Your task to perform on an android device: turn smart compose on in the gmail app Image 0: 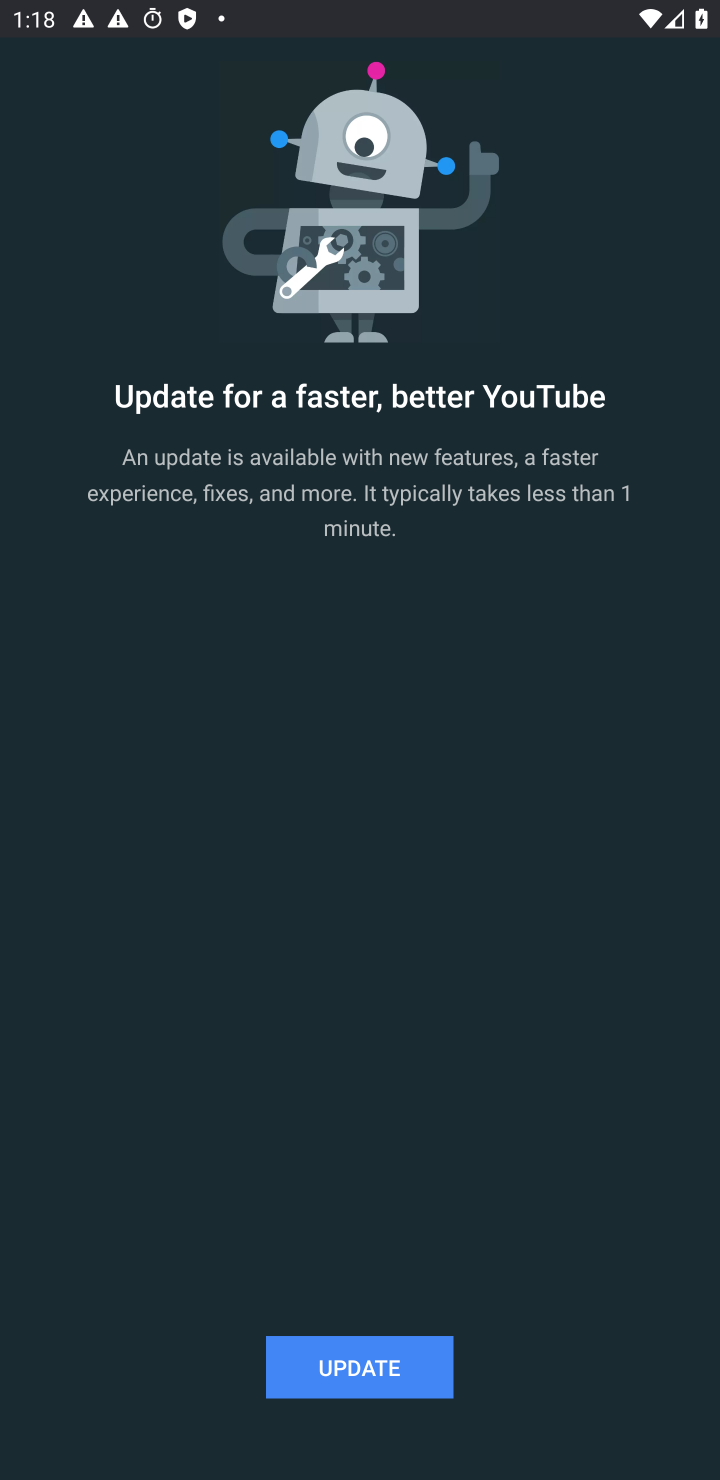
Step 0: press home button
Your task to perform on an android device: turn smart compose on in the gmail app Image 1: 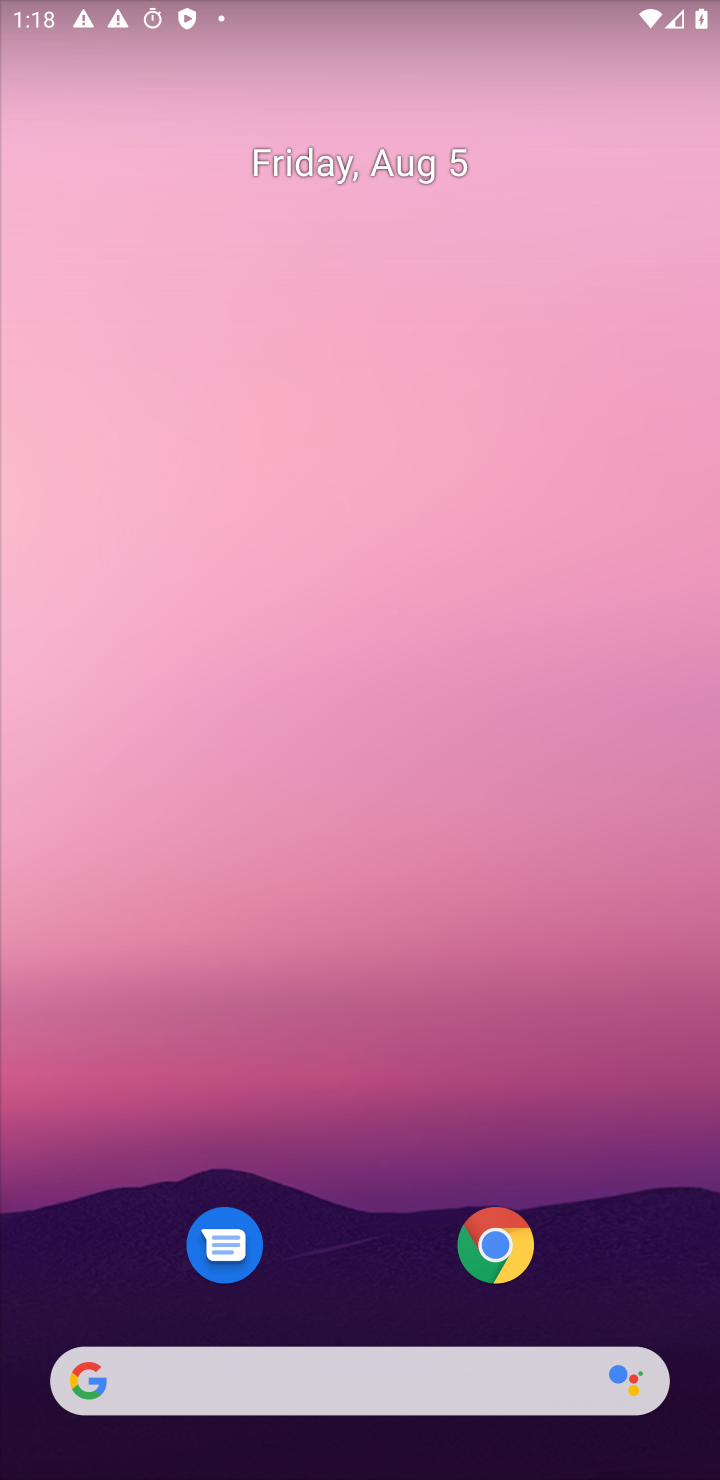
Step 1: drag from (386, 1217) to (537, 321)
Your task to perform on an android device: turn smart compose on in the gmail app Image 2: 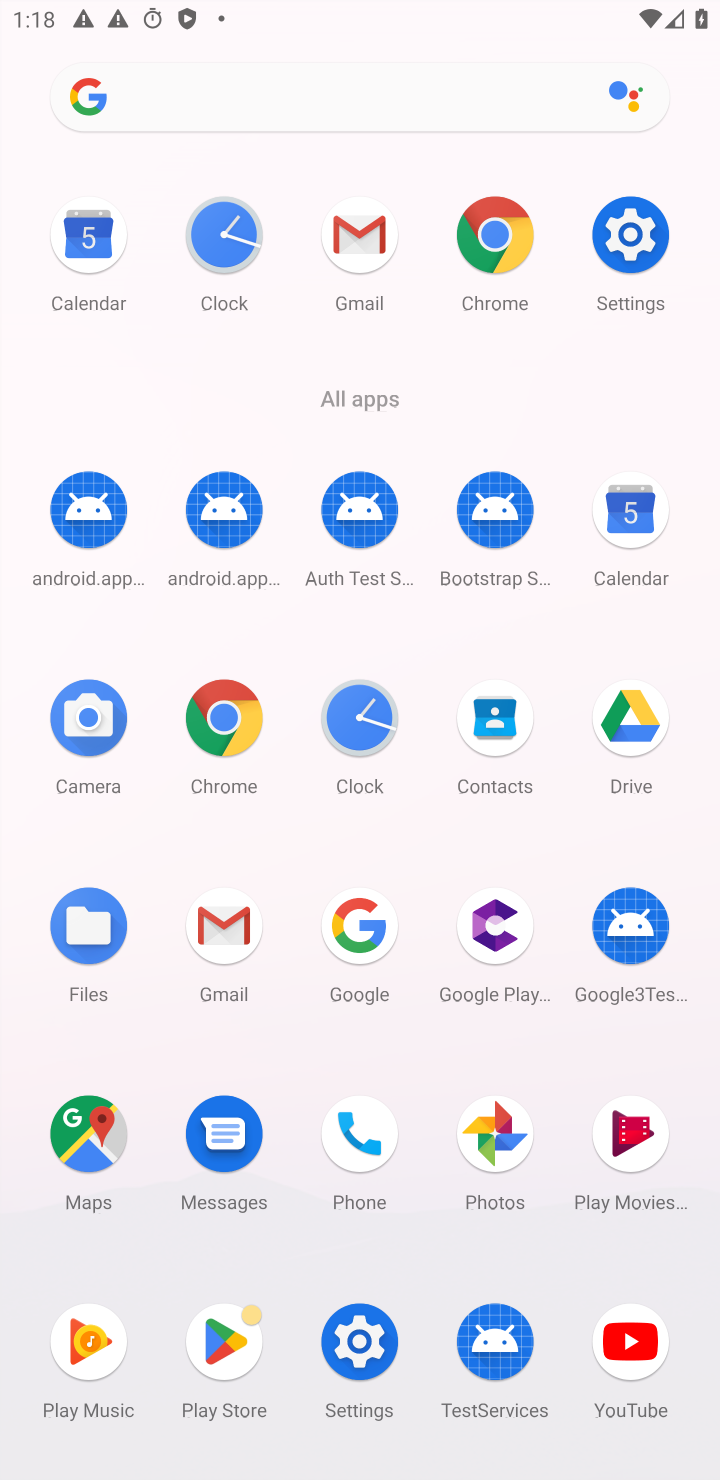
Step 2: click (351, 248)
Your task to perform on an android device: turn smart compose on in the gmail app Image 3: 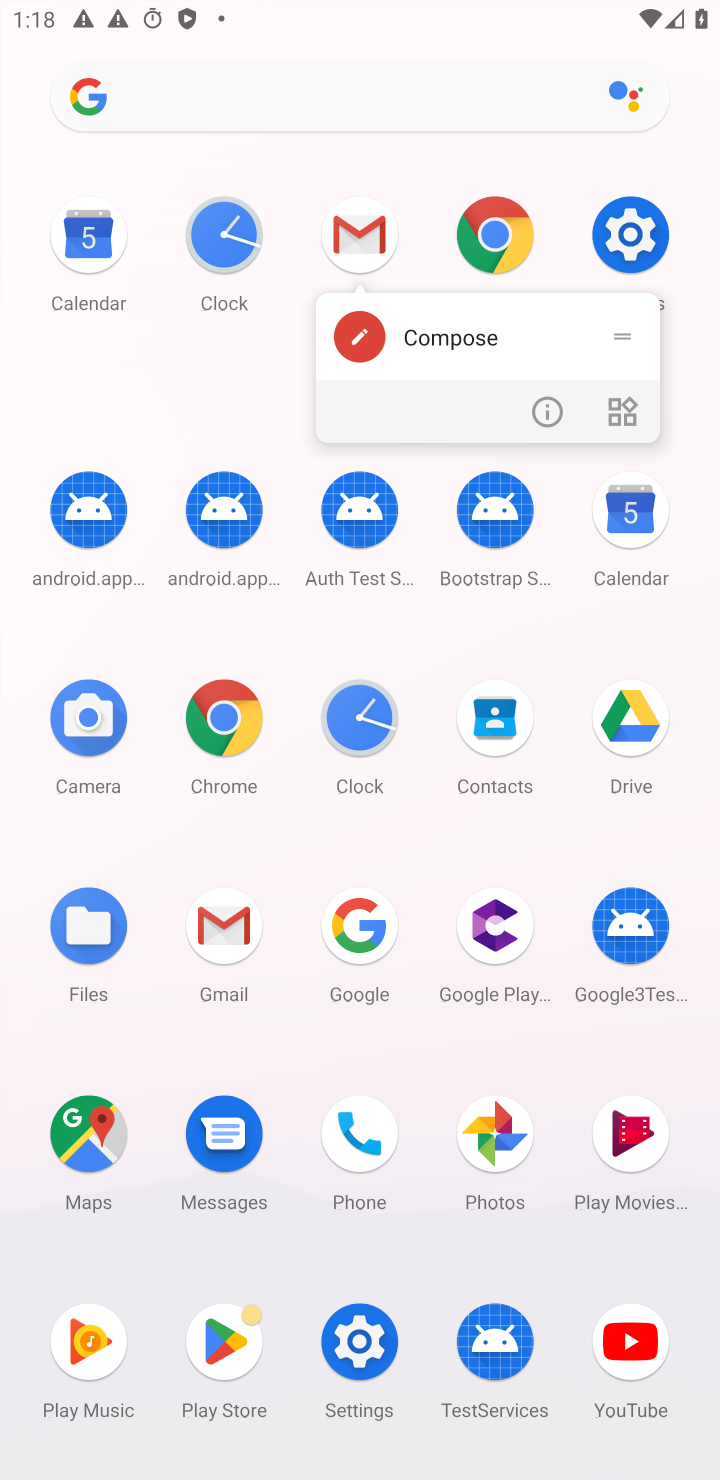
Step 3: click (350, 243)
Your task to perform on an android device: turn smart compose on in the gmail app Image 4: 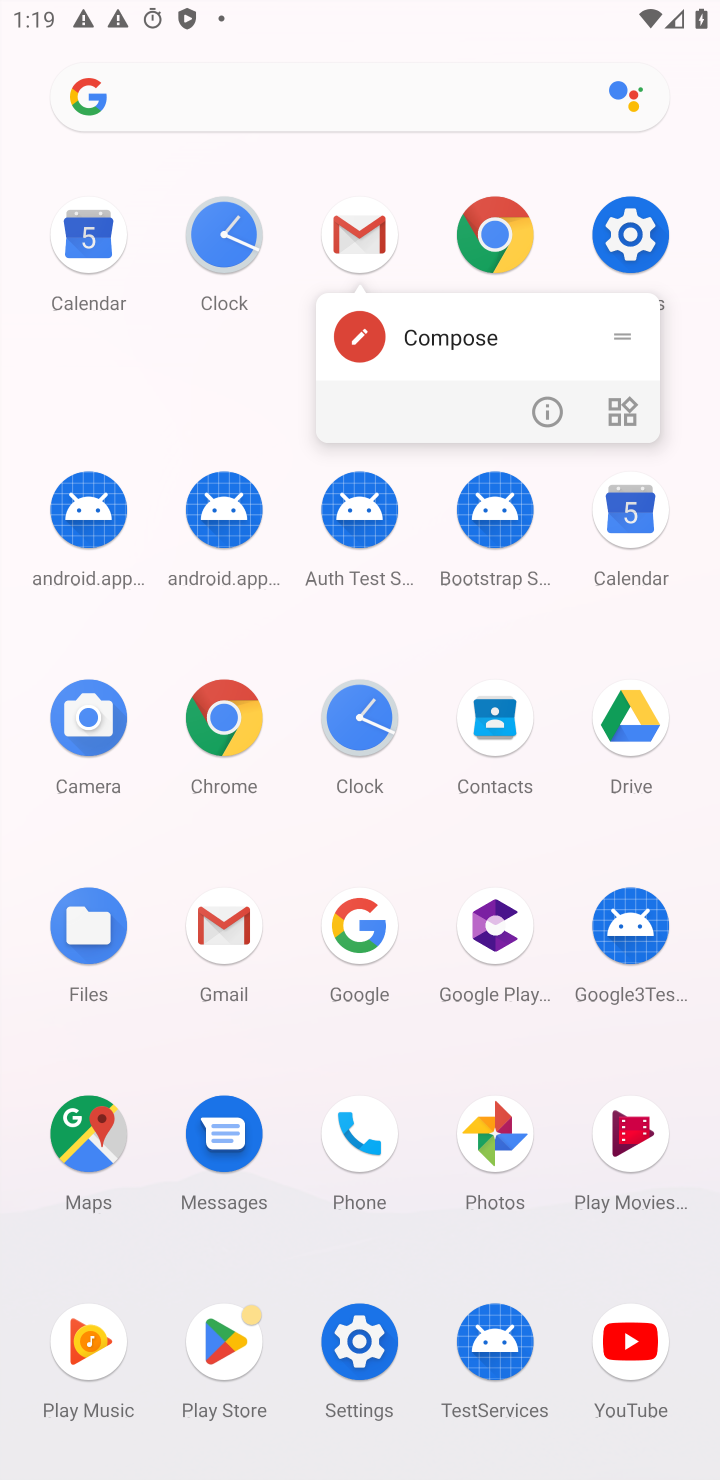
Step 4: click (348, 253)
Your task to perform on an android device: turn smart compose on in the gmail app Image 5: 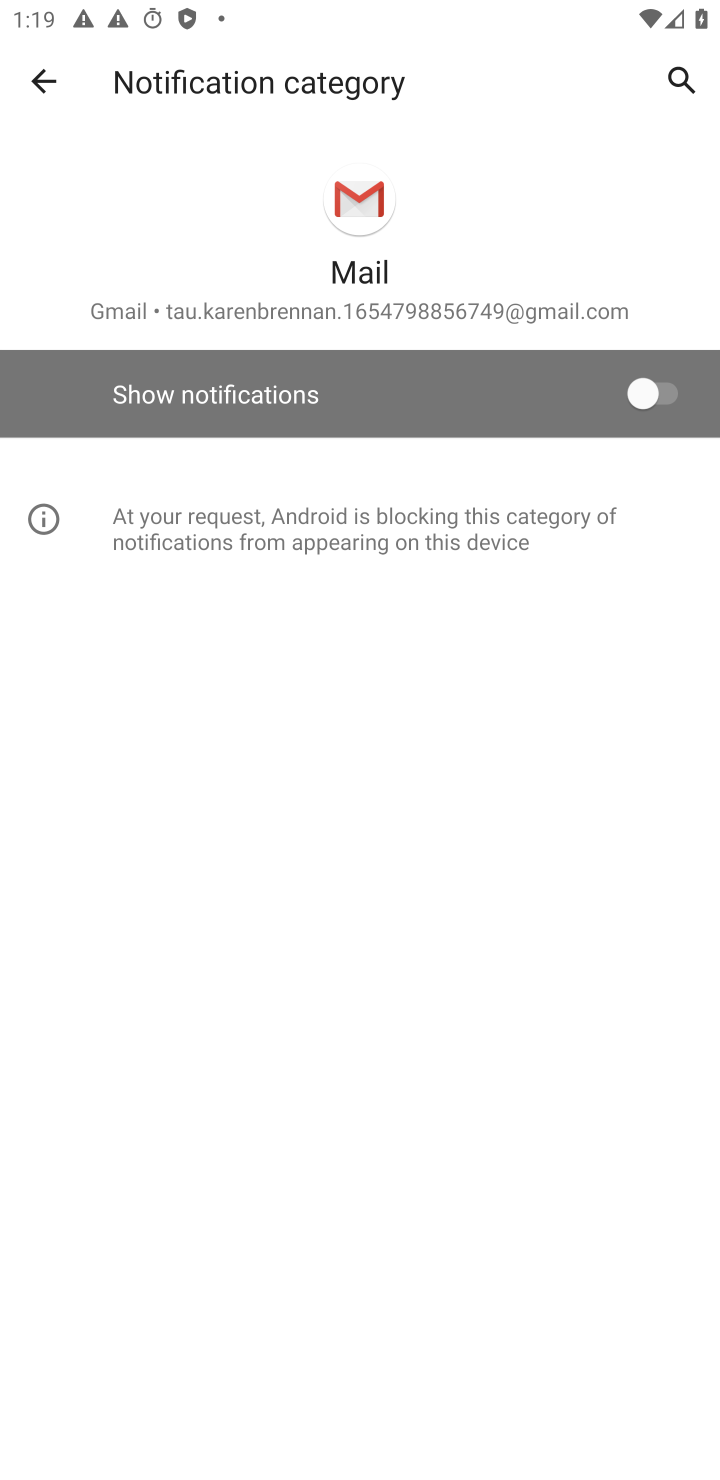
Step 5: click (51, 70)
Your task to perform on an android device: turn smart compose on in the gmail app Image 6: 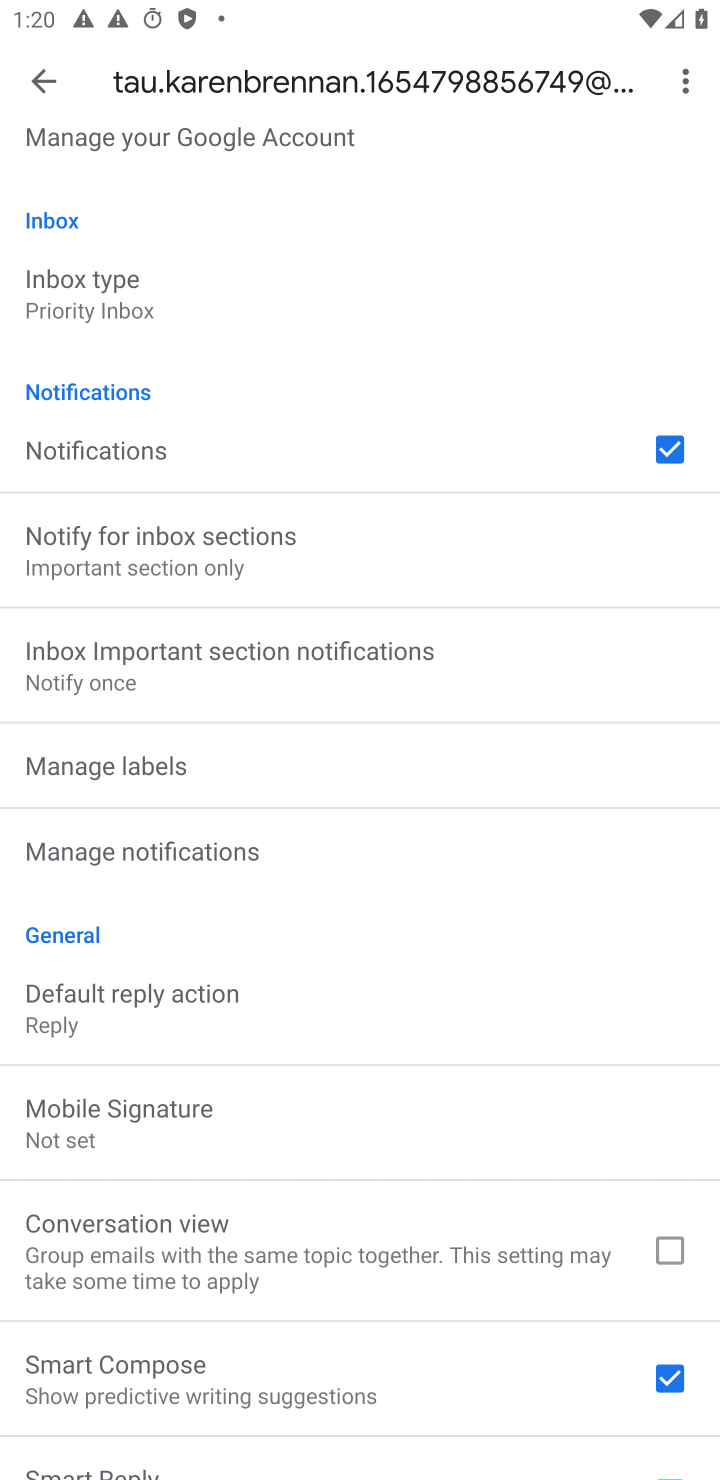
Step 6: task complete